Your task to perform on an android device: turn on the 24-hour format for clock Image 0: 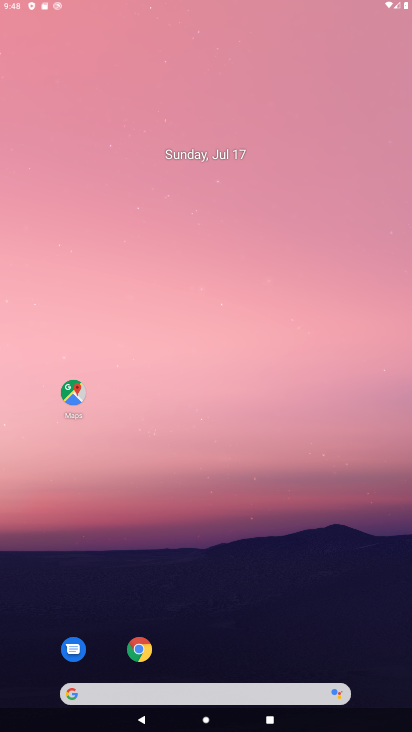
Step 0: click (238, 86)
Your task to perform on an android device: turn on the 24-hour format for clock Image 1: 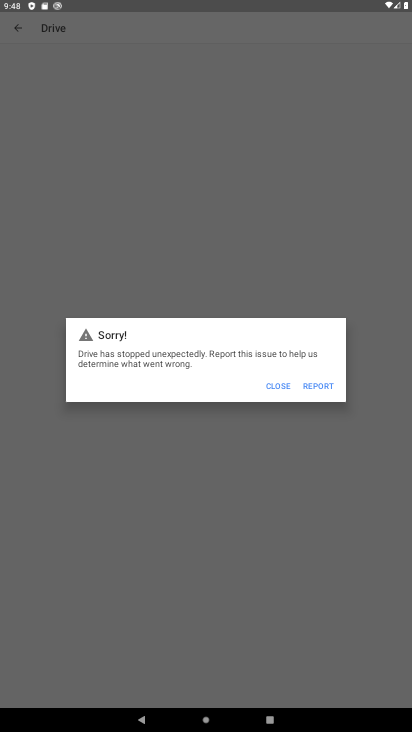
Step 1: press home button
Your task to perform on an android device: turn on the 24-hour format for clock Image 2: 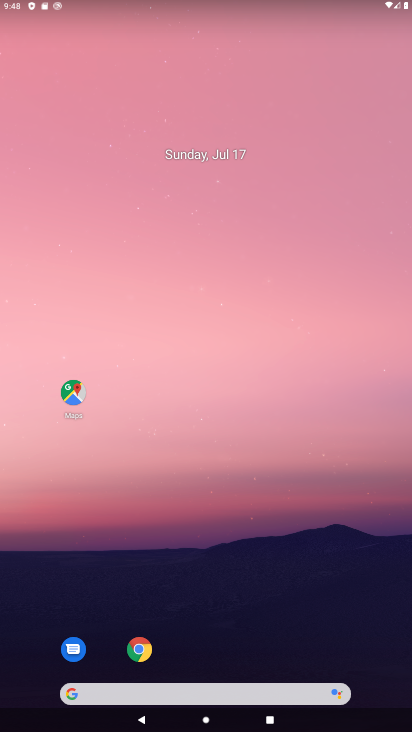
Step 2: drag from (59, 638) to (234, 169)
Your task to perform on an android device: turn on the 24-hour format for clock Image 3: 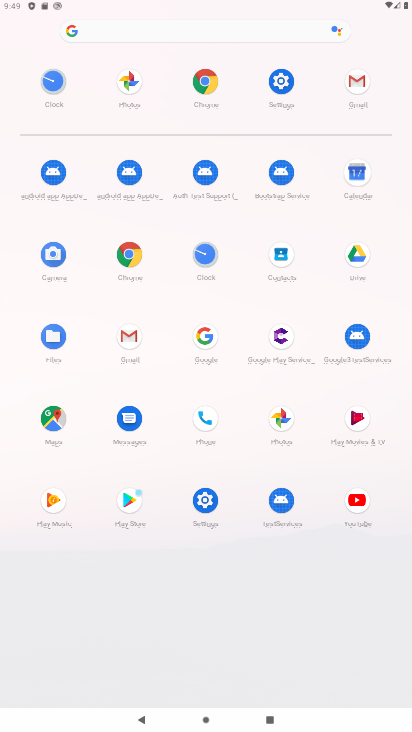
Step 3: click (198, 260)
Your task to perform on an android device: turn on the 24-hour format for clock Image 4: 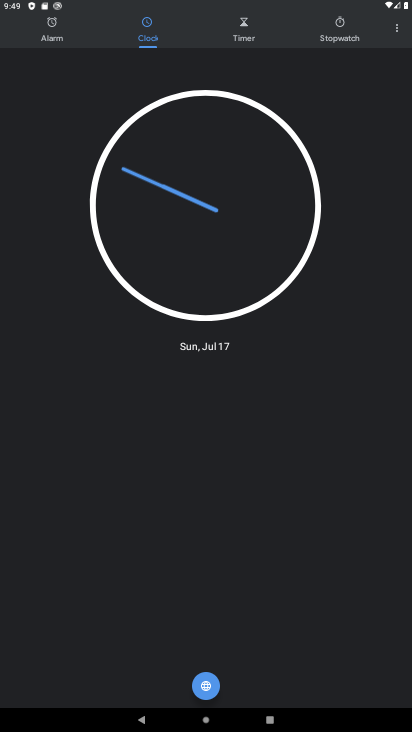
Step 4: click (388, 31)
Your task to perform on an android device: turn on the 24-hour format for clock Image 5: 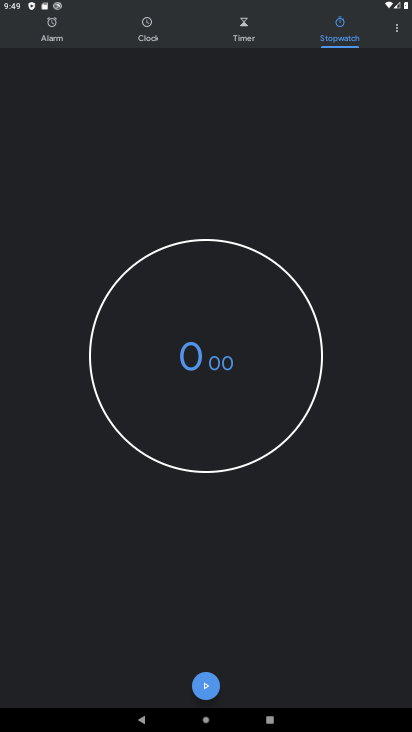
Step 5: click (406, 33)
Your task to perform on an android device: turn on the 24-hour format for clock Image 6: 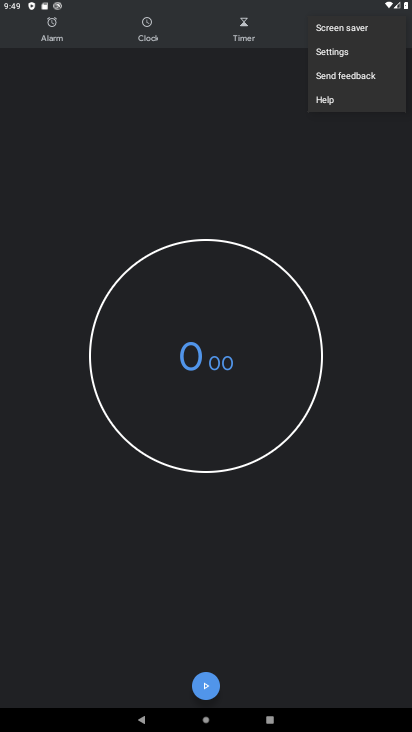
Step 6: click (332, 54)
Your task to perform on an android device: turn on the 24-hour format for clock Image 7: 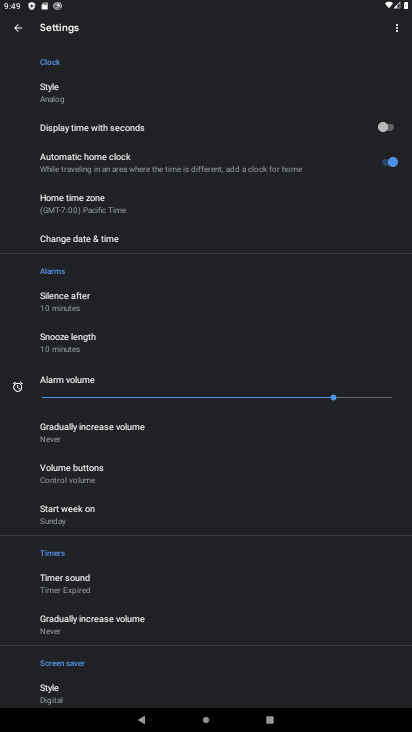
Step 7: click (124, 245)
Your task to perform on an android device: turn on the 24-hour format for clock Image 8: 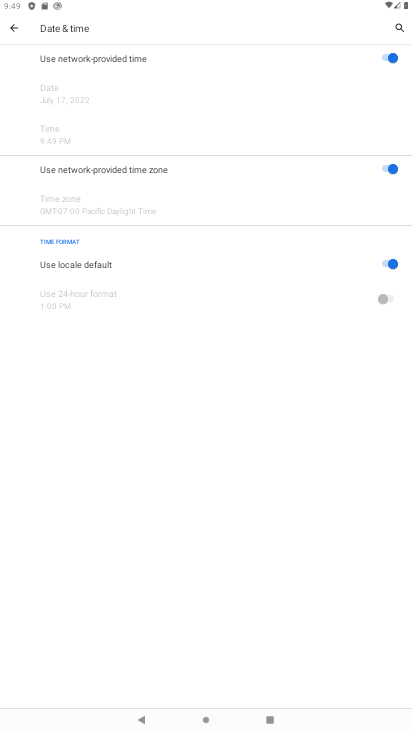
Step 8: click (393, 266)
Your task to perform on an android device: turn on the 24-hour format for clock Image 9: 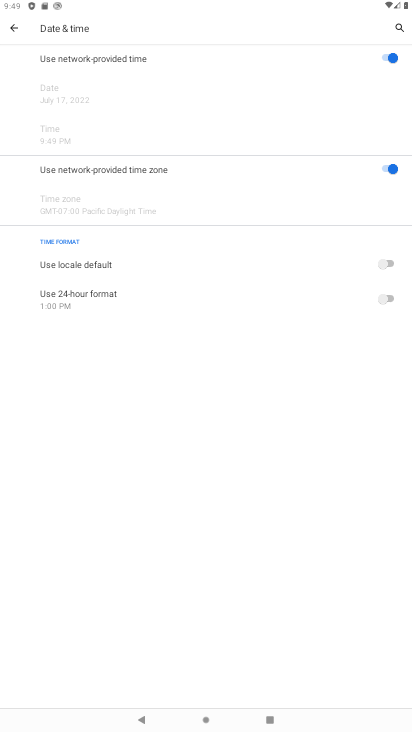
Step 9: click (390, 300)
Your task to perform on an android device: turn on the 24-hour format for clock Image 10: 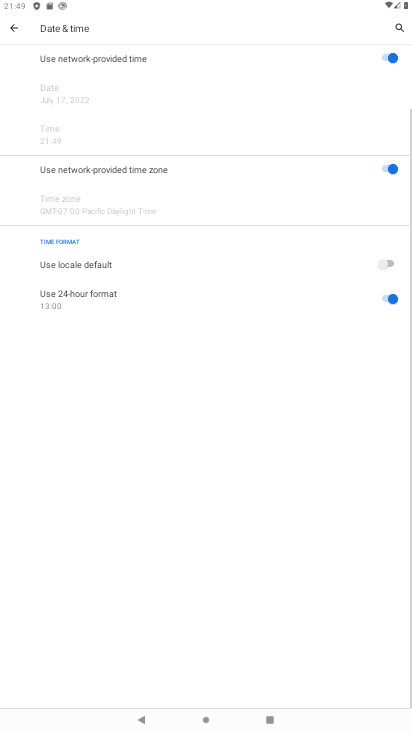
Step 10: task complete